Your task to perform on an android device: turn on javascript in the chrome app Image 0: 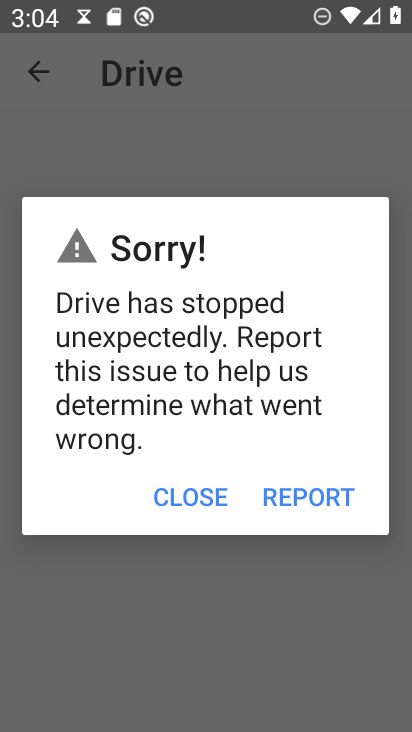
Step 0: drag from (321, 553) to (270, 369)
Your task to perform on an android device: turn on javascript in the chrome app Image 1: 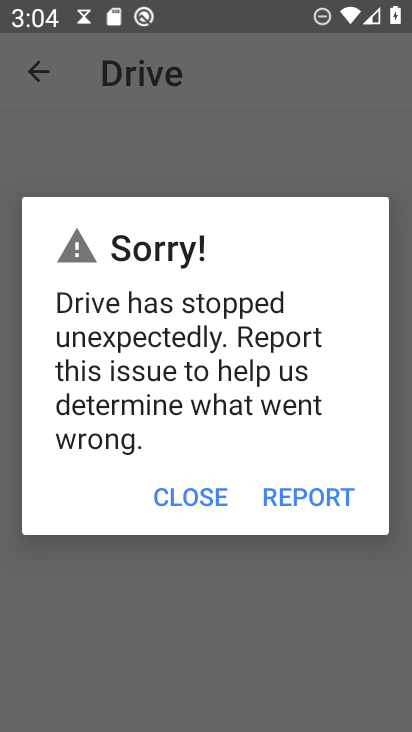
Step 1: press back button
Your task to perform on an android device: turn on javascript in the chrome app Image 2: 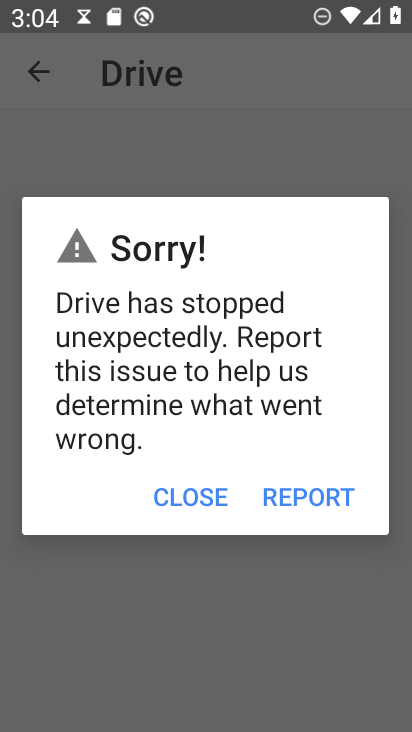
Step 2: press home button
Your task to perform on an android device: turn on javascript in the chrome app Image 3: 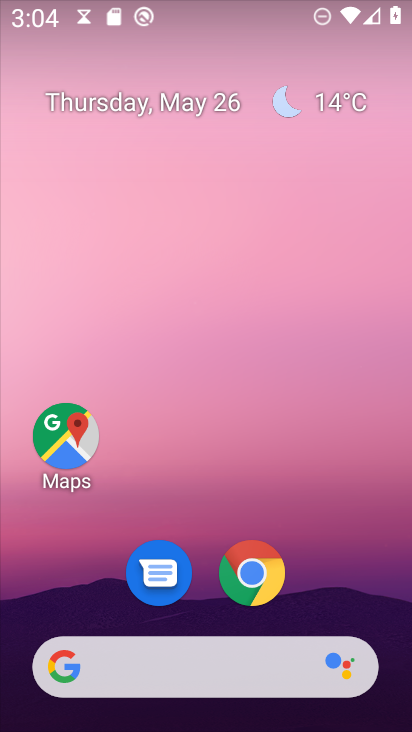
Step 3: drag from (325, 575) to (228, 95)
Your task to perform on an android device: turn on javascript in the chrome app Image 4: 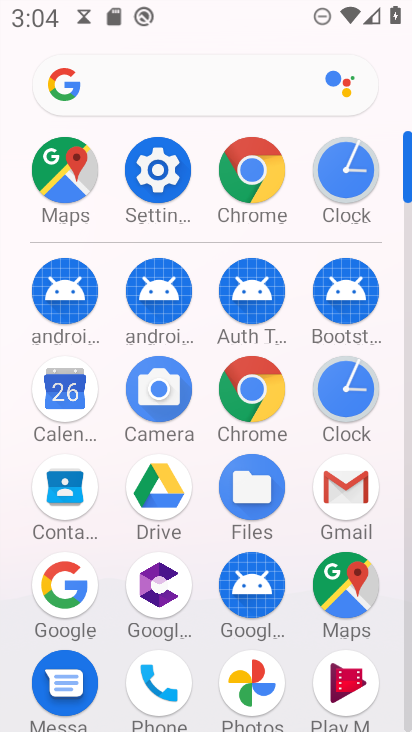
Step 4: click (253, 160)
Your task to perform on an android device: turn on javascript in the chrome app Image 5: 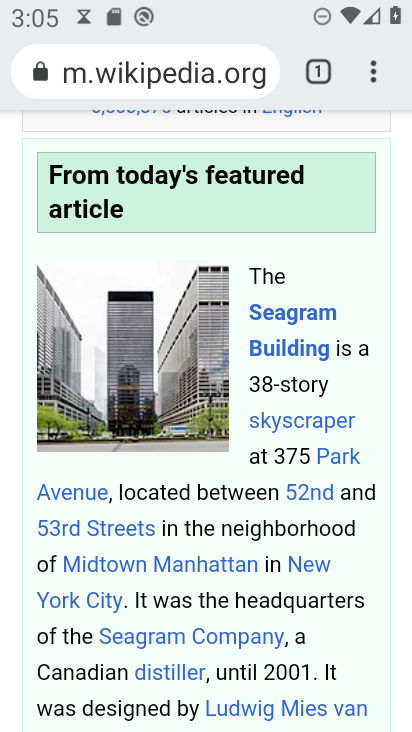
Step 5: drag from (366, 67) to (107, 571)
Your task to perform on an android device: turn on javascript in the chrome app Image 6: 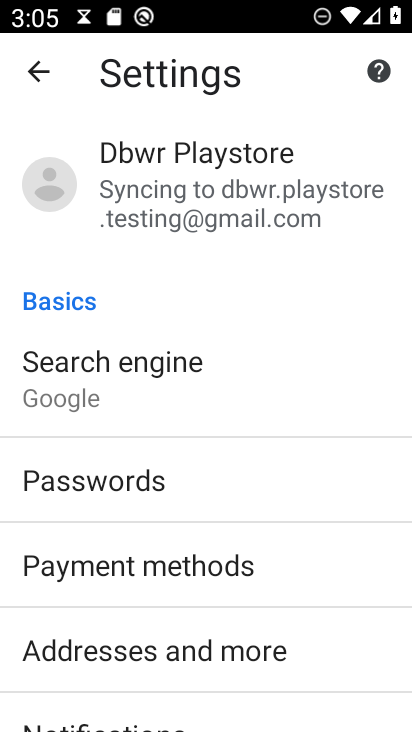
Step 6: drag from (298, 577) to (264, 230)
Your task to perform on an android device: turn on javascript in the chrome app Image 7: 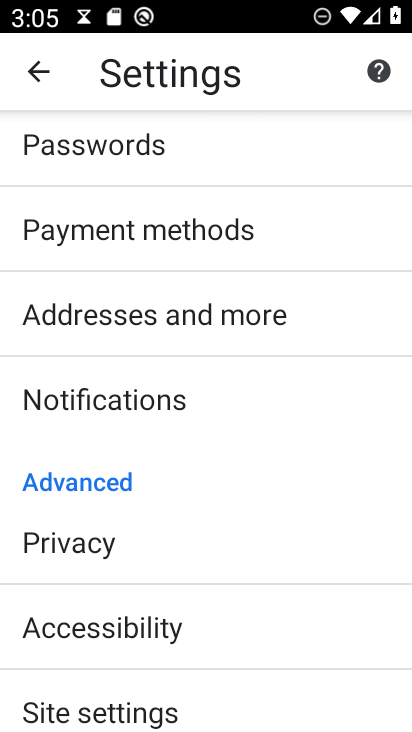
Step 7: drag from (213, 562) to (198, 192)
Your task to perform on an android device: turn on javascript in the chrome app Image 8: 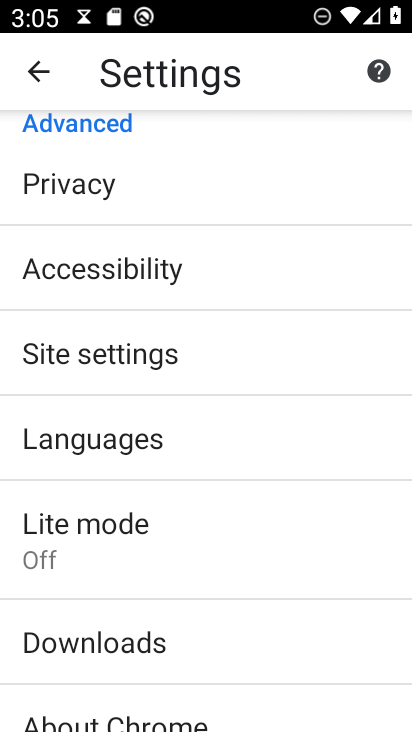
Step 8: drag from (213, 610) to (237, 244)
Your task to perform on an android device: turn on javascript in the chrome app Image 9: 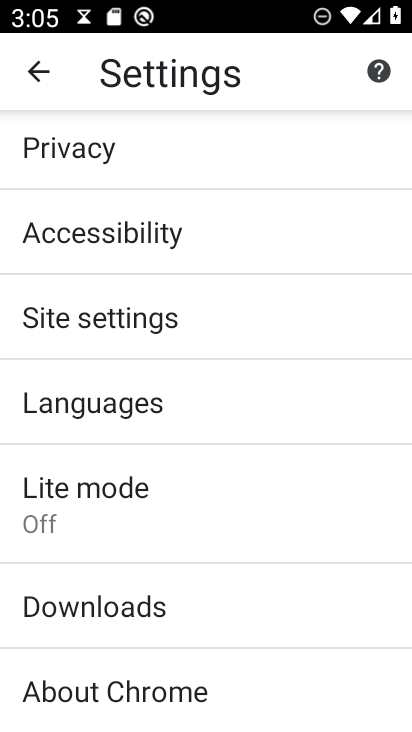
Step 9: click (166, 319)
Your task to perform on an android device: turn on javascript in the chrome app Image 10: 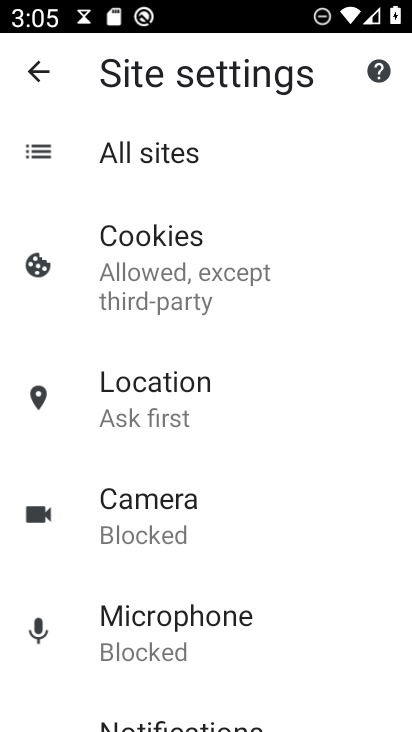
Step 10: task complete